Your task to perform on an android device: change alarm snooze length Image 0: 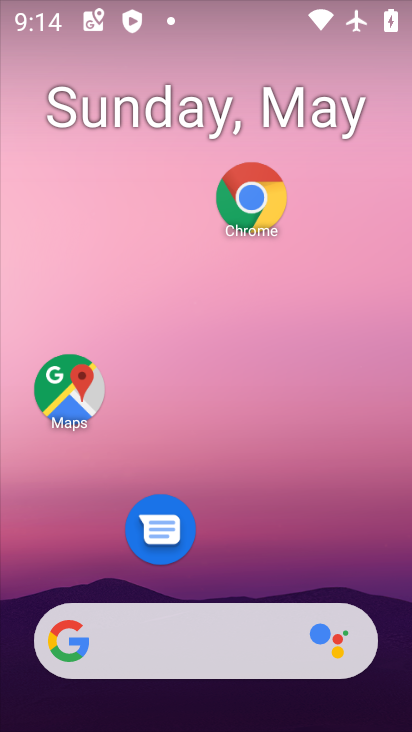
Step 0: drag from (261, 592) to (270, 81)
Your task to perform on an android device: change alarm snooze length Image 1: 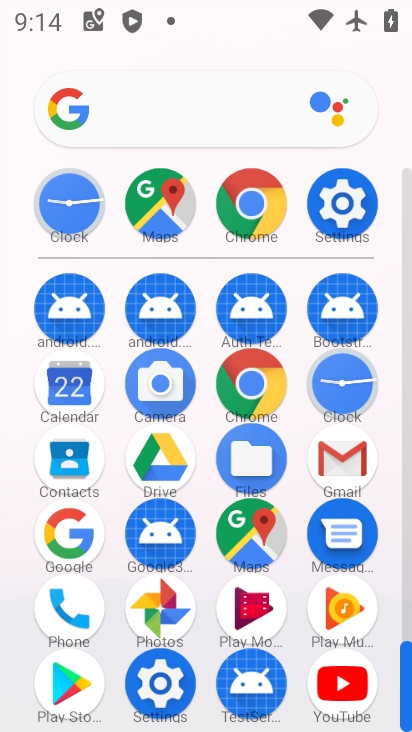
Step 1: click (347, 387)
Your task to perform on an android device: change alarm snooze length Image 2: 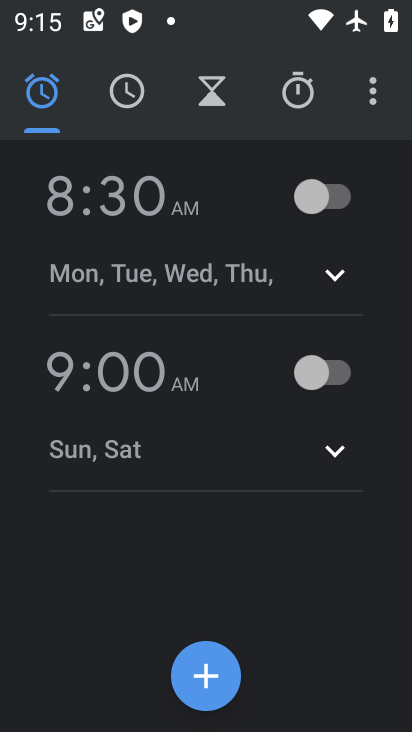
Step 2: click (366, 92)
Your task to perform on an android device: change alarm snooze length Image 3: 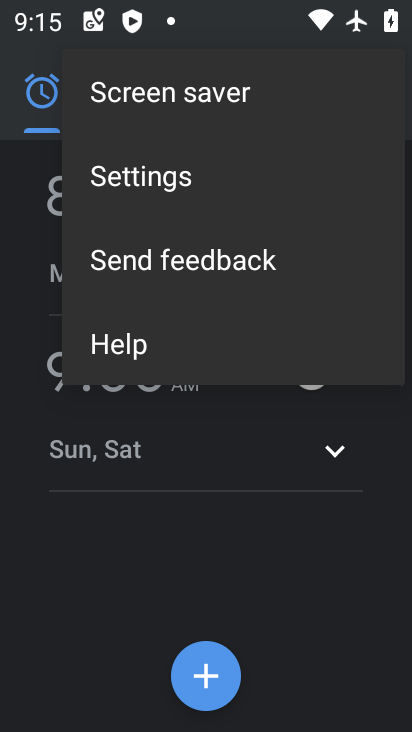
Step 3: click (197, 188)
Your task to perform on an android device: change alarm snooze length Image 4: 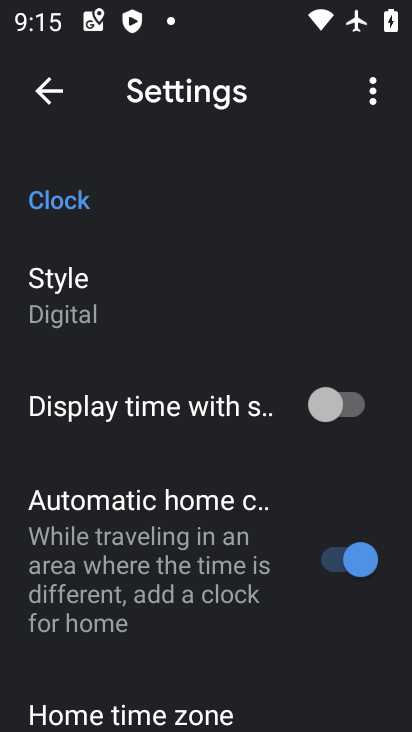
Step 4: drag from (250, 633) to (242, 312)
Your task to perform on an android device: change alarm snooze length Image 5: 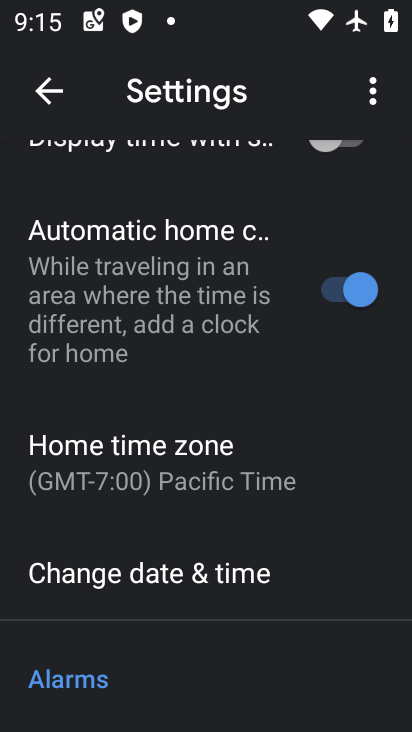
Step 5: drag from (149, 641) to (155, 332)
Your task to perform on an android device: change alarm snooze length Image 6: 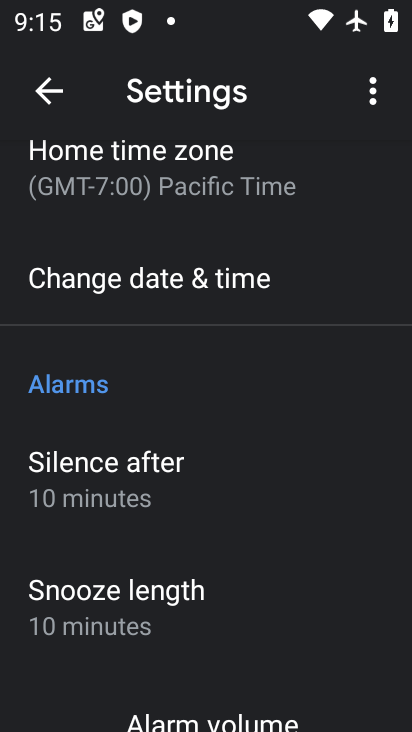
Step 6: click (167, 630)
Your task to perform on an android device: change alarm snooze length Image 7: 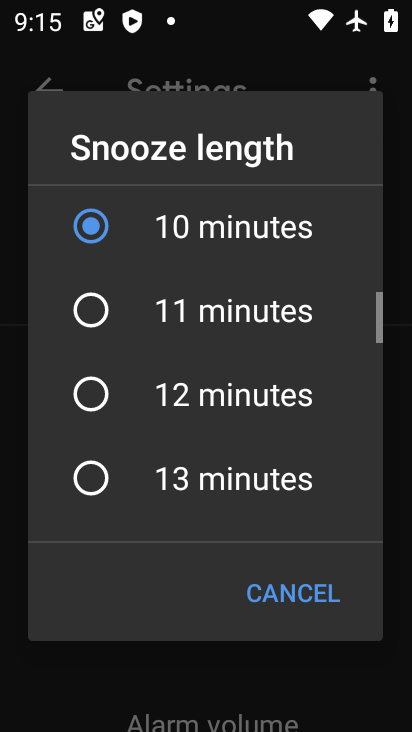
Step 7: click (216, 478)
Your task to perform on an android device: change alarm snooze length Image 8: 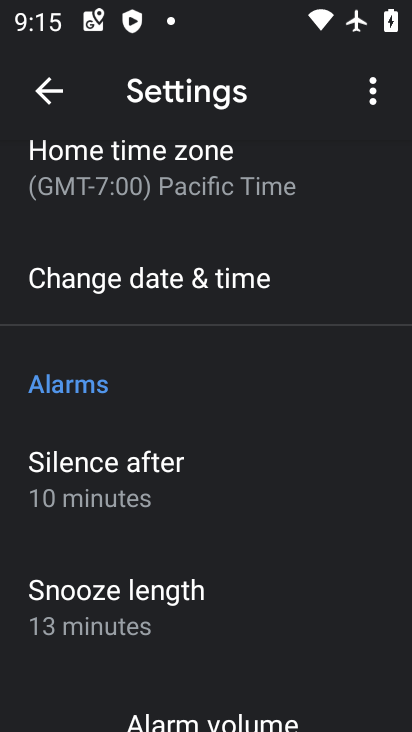
Step 8: task complete